Your task to perform on an android device: Open Google Chrome and click the shortcut for Amazon.com Image 0: 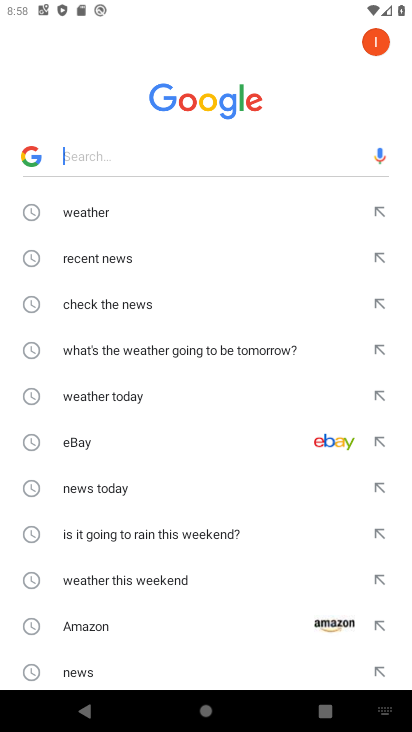
Step 0: press home button
Your task to perform on an android device: Open Google Chrome and click the shortcut for Amazon.com Image 1: 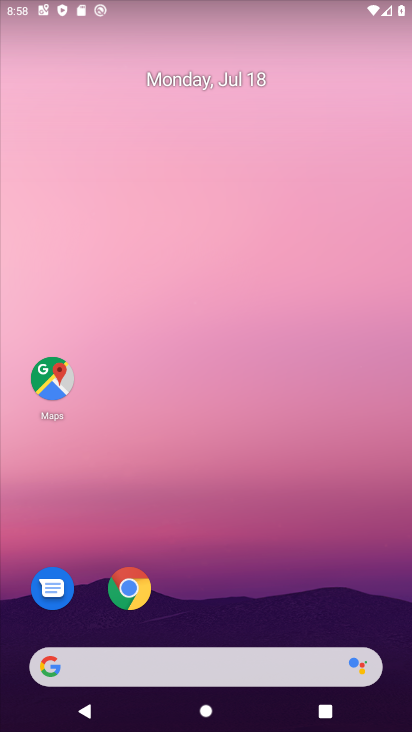
Step 1: click (137, 582)
Your task to perform on an android device: Open Google Chrome and click the shortcut for Amazon.com Image 2: 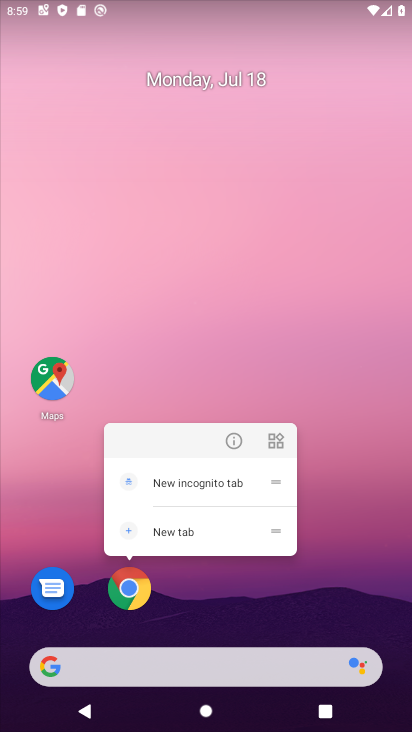
Step 2: click (116, 607)
Your task to perform on an android device: Open Google Chrome and click the shortcut for Amazon.com Image 3: 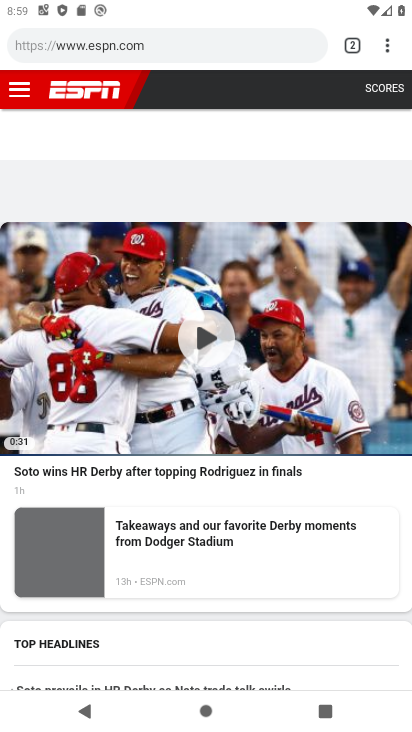
Step 3: click (391, 48)
Your task to perform on an android device: Open Google Chrome and click the shortcut for Amazon.com Image 4: 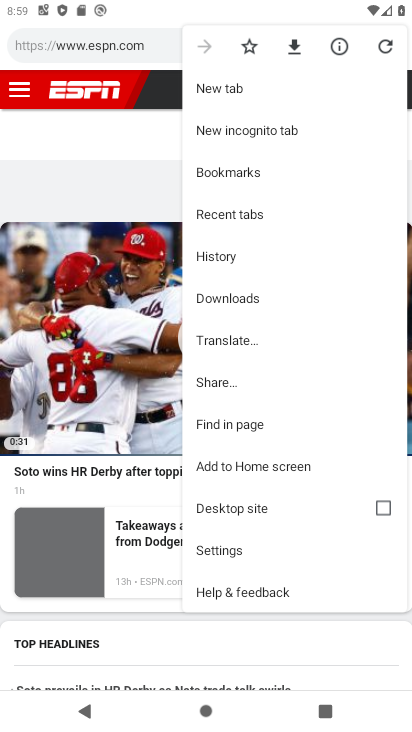
Step 4: click (210, 91)
Your task to perform on an android device: Open Google Chrome and click the shortcut for Amazon.com Image 5: 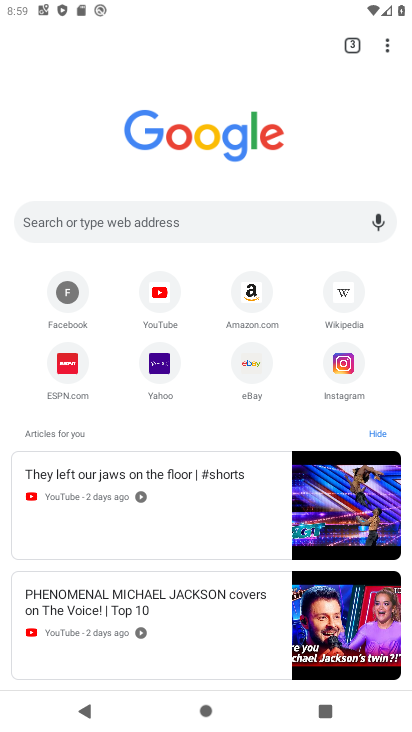
Step 5: click (248, 288)
Your task to perform on an android device: Open Google Chrome and click the shortcut for Amazon.com Image 6: 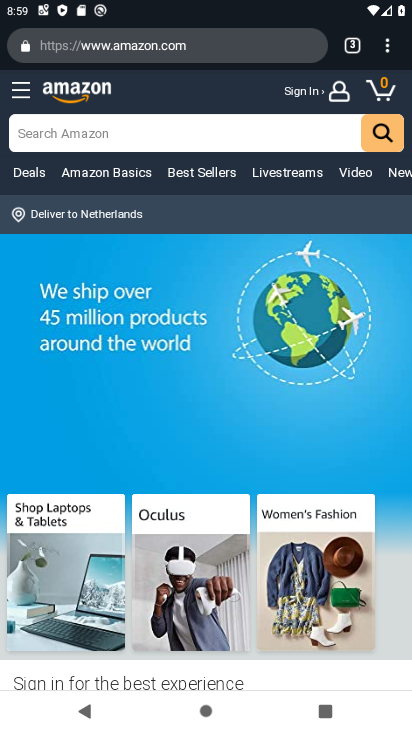
Step 6: task complete